Your task to perform on an android device: Check the news Image 0: 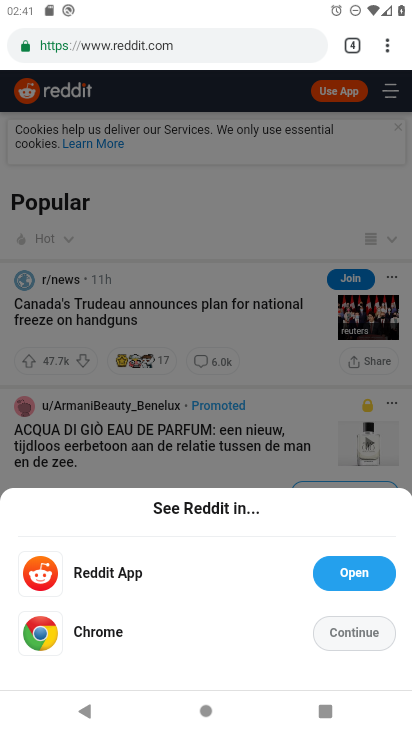
Step 0: press home button
Your task to perform on an android device: Check the news Image 1: 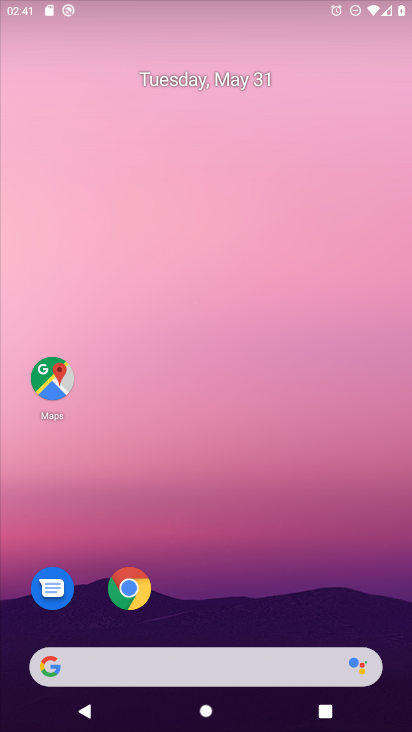
Step 1: drag from (275, 589) to (325, 0)
Your task to perform on an android device: Check the news Image 2: 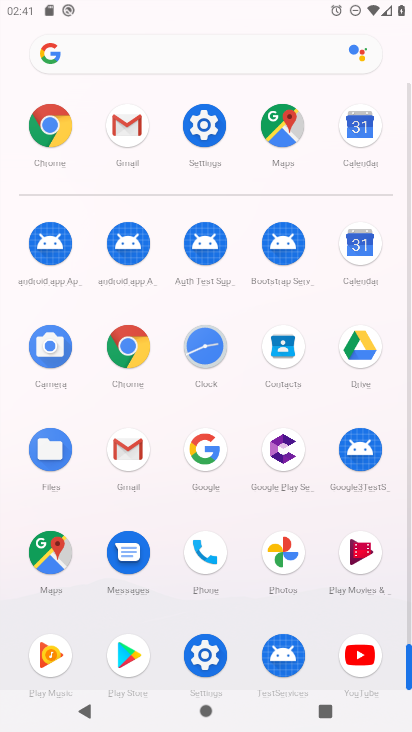
Step 2: click (123, 349)
Your task to perform on an android device: Check the news Image 3: 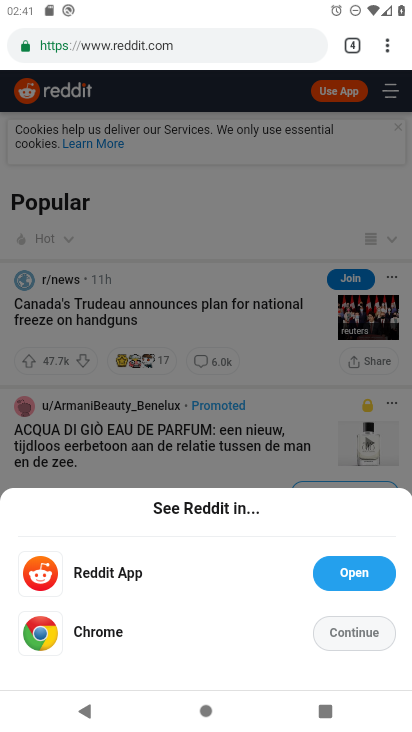
Step 3: click (249, 48)
Your task to perform on an android device: Check the news Image 4: 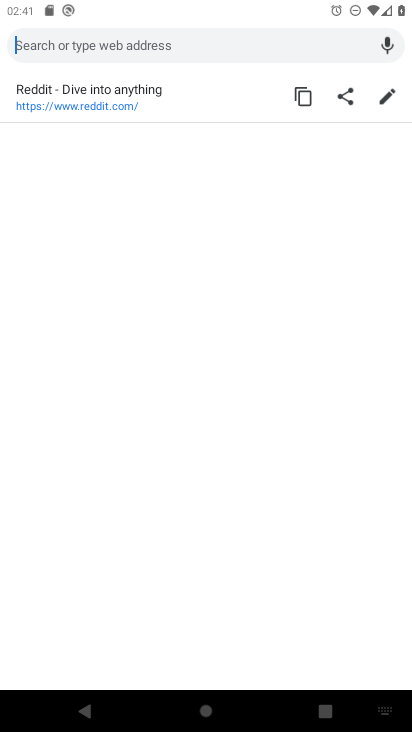
Step 4: type "checck the news"
Your task to perform on an android device: Check the news Image 5: 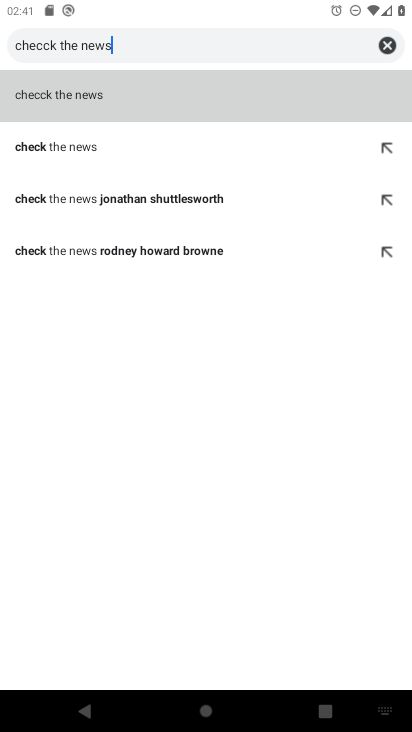
Step 5: click (221, 158)
Your task to perform on an android device: Check the news Image 6: 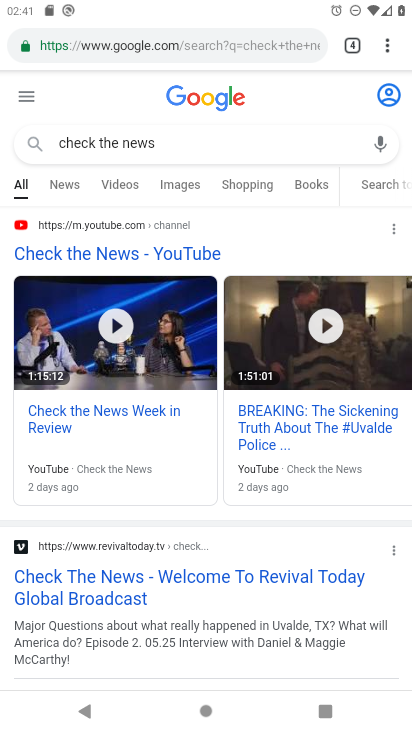
Step 6: task complete